Your task to perform on an android device: Turn on the flashlight Image 0: 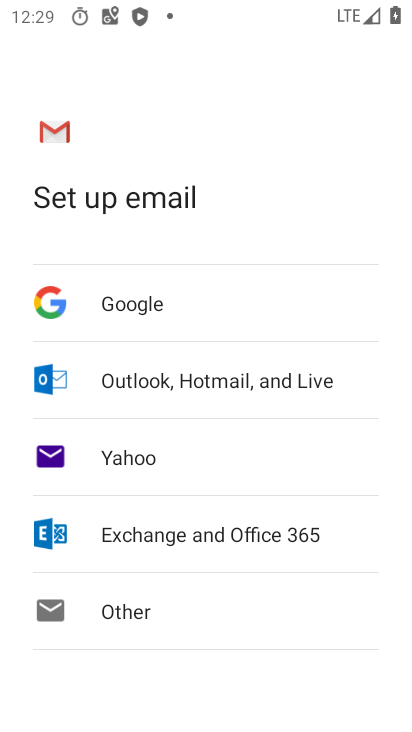
Step 0: press home button
Your task to perform on an android device: Turn on the flashlight Image 1: 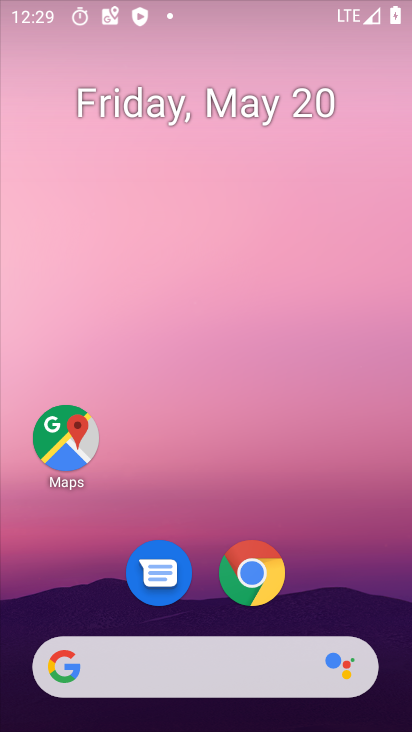
Step 1: drag from (175, 548) to (311, 63)
Your task to perform on an android device: Turn on the flashlight Image 2: 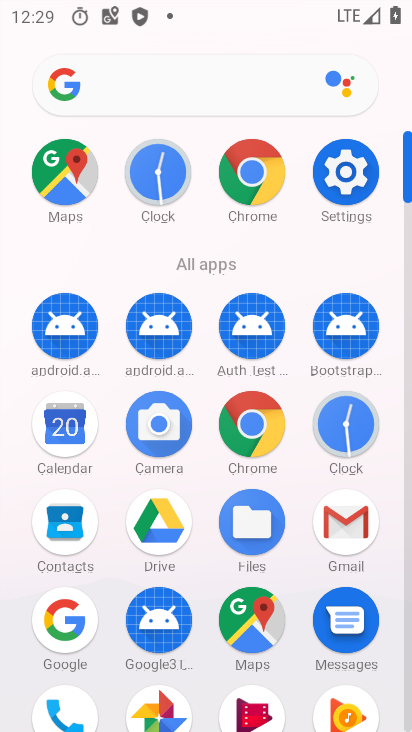
Step 2: click (249, 87)
Your task to perform on an android device: Turn on the flashlight Image 3: 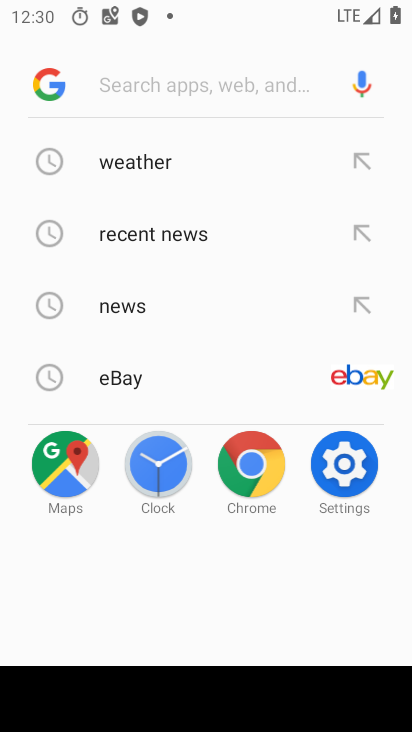
Step 3: press home button
Your task to perform on an android device: Turn on the flashlight Image 4: 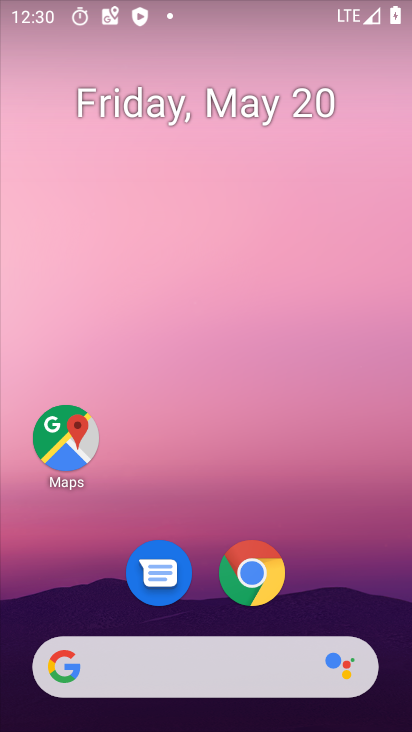
Step 4: drag from (211, 609) to (337, 6)
Your task to perform on an android device: Turn on the flashlight Image 5: 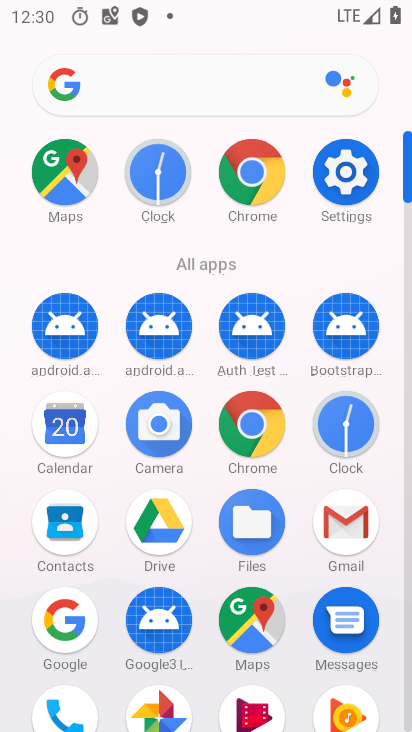
Step 5: click (350, 203)
Your task to perform on an android device: Turn on the flashlight Image 6: 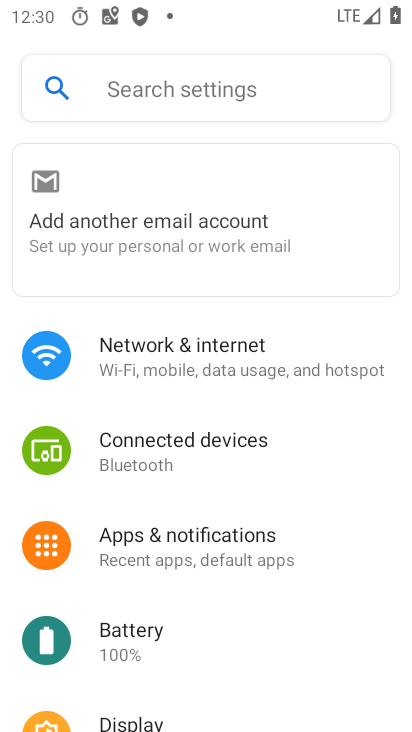
Step 6: click (218, 106)
Your task to perform on an android device: Turn on the flashlight Image 7: 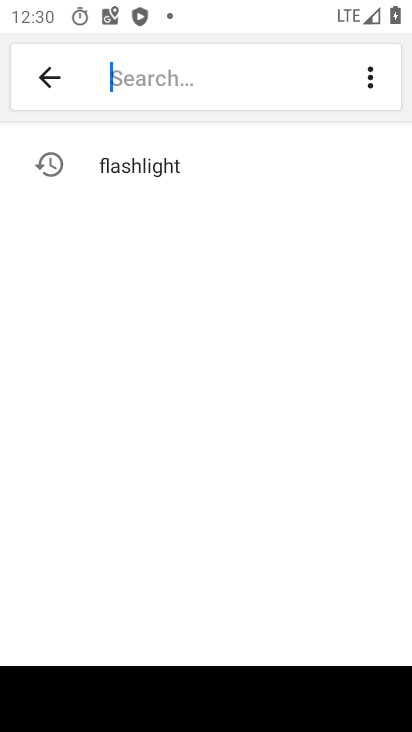
Step 7: type "flashloght"
Your task to perform on an android device: Turn on the flashlight Image 8: 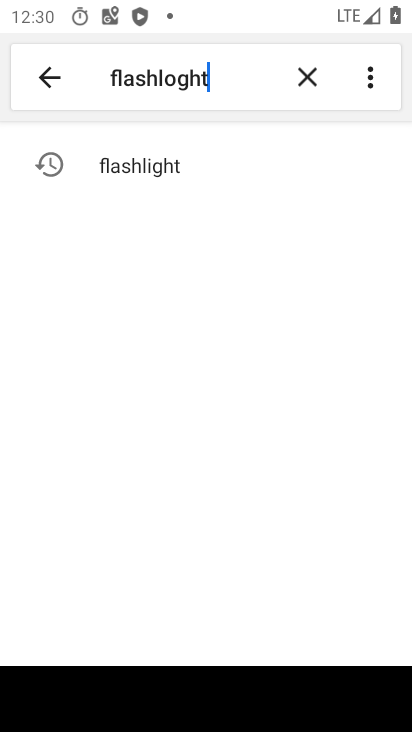
Step 8: click (265, 161)
Your task to perform on an android device: Turn on the flashlight Image 9: 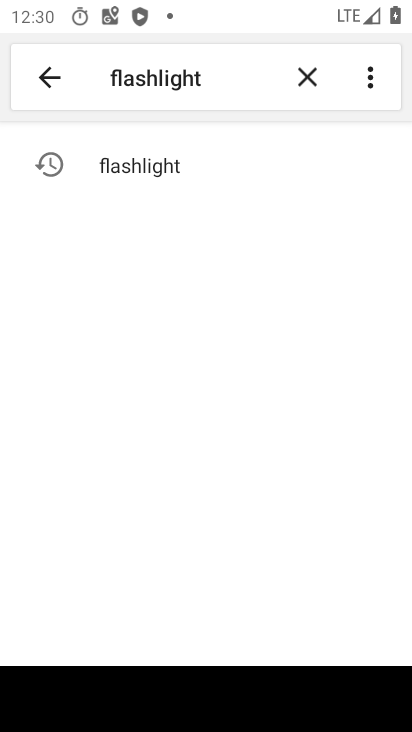
Step 9: click (265, 162)
Your task to perform on an android device: Turn on the flashlight Image 10: 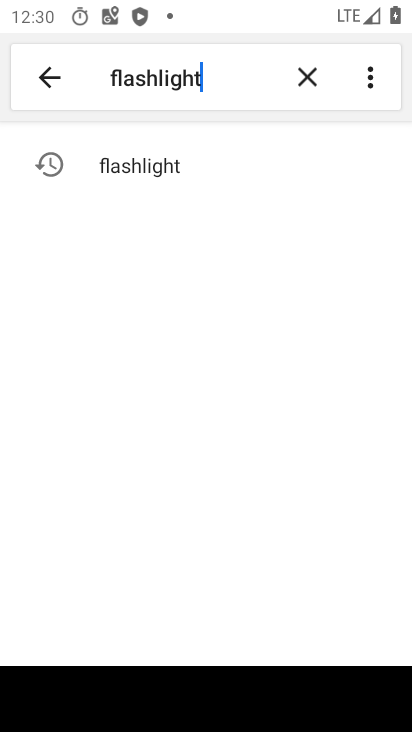
Step 10: task complete